Your task to perform on an android device: check data usage Image 0: 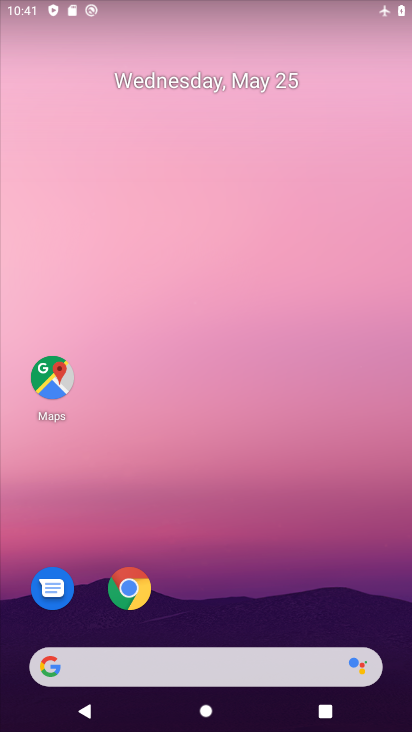
Step 0: drag from (232, 645) to (272, 140)
Your task to perform on an android device: check data usage Image 1: 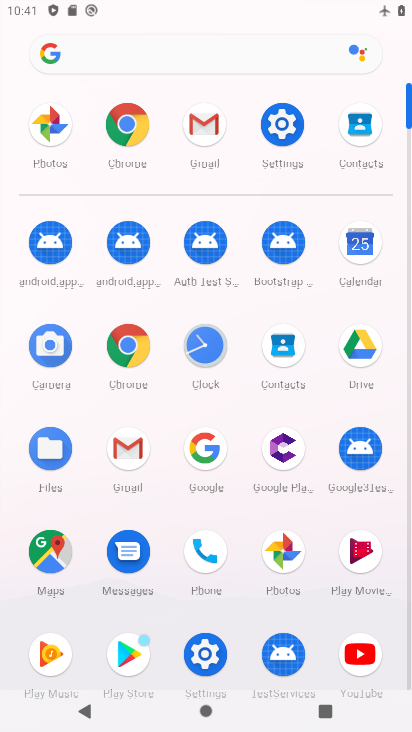
Step 1: click (281, 134)
Your task to perform on an android device: check data usage Image 2: 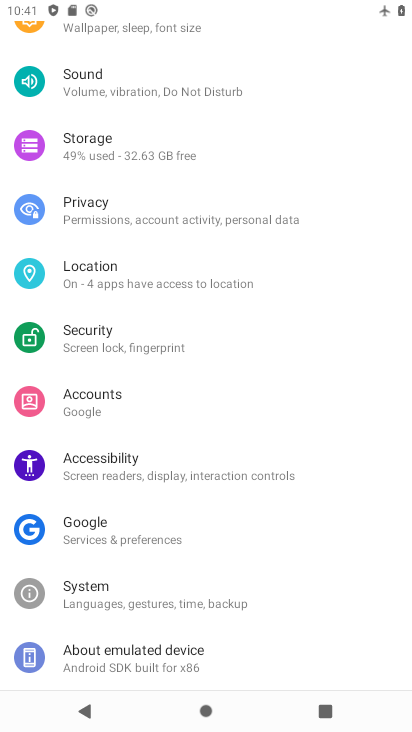
Step 2: drag from (193, 176) to (139, 637)
Your task to perform on an android device: check data usage Image 3: 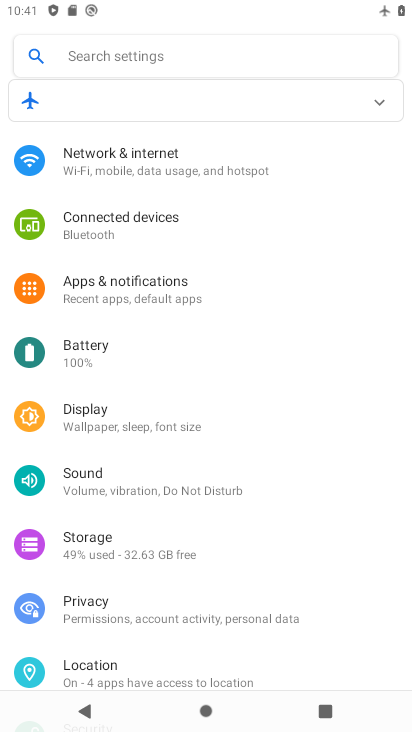
Step 3: click (171, 174)
Your task to perform on an android device: check data usage Image 4: 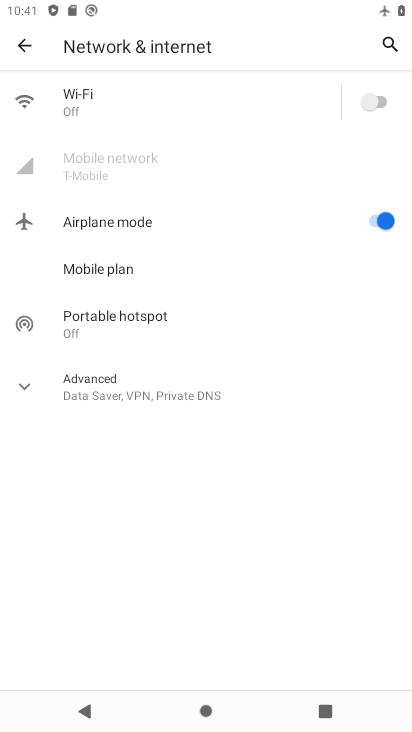
Step 4: click (145, 151)
Your task to perform on an android device: check data usage Image 5: 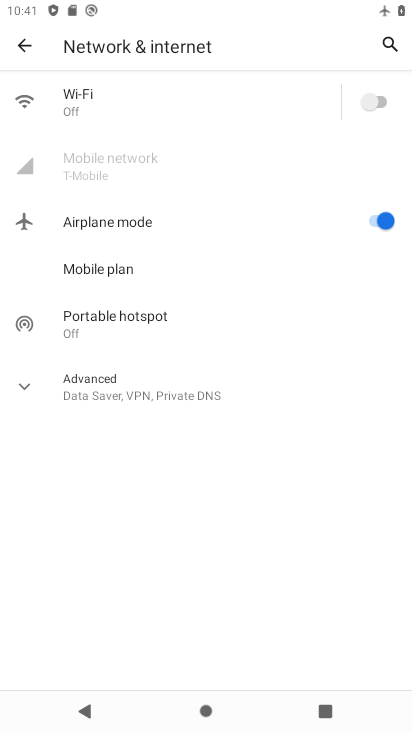
Step 5: click (134, 163)
Your task to perform on an android device: check data usage Image 6: 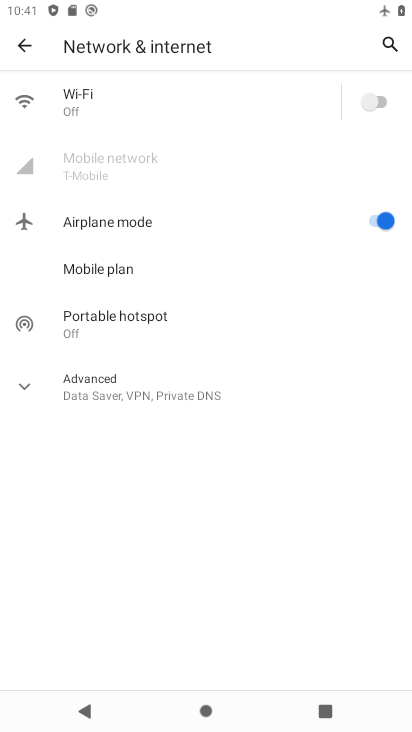
Step 6: click (134, 160)
Your task to perform on an android device: check data usage Image 7: 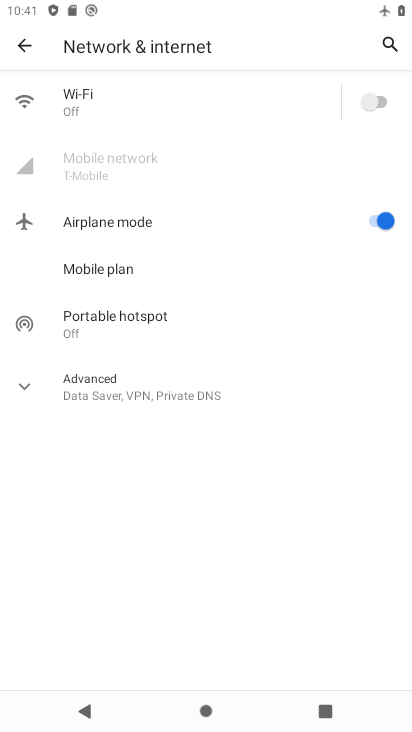
Step 7: click (134, 159)
Your task to perform on an android device: check data usage Image 8: 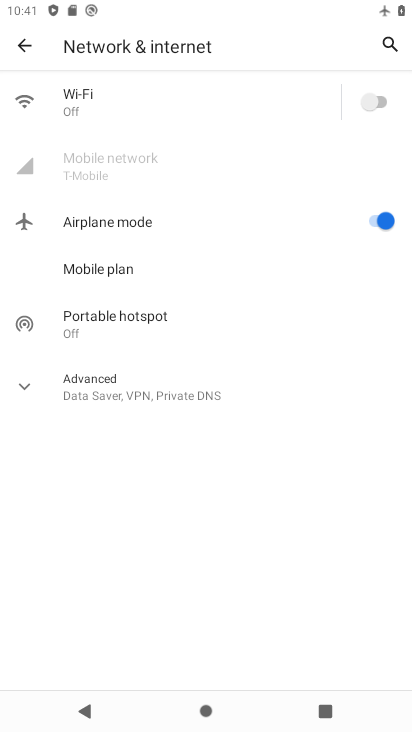
Step 8: click (134, 159)
Your task to perform on an android device: check data usage Image 9: 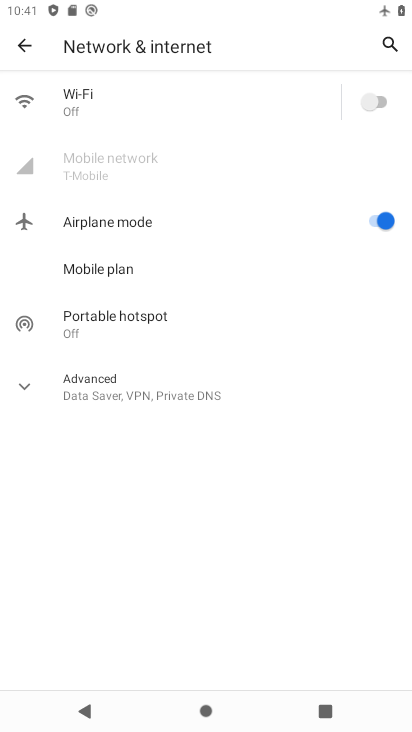
Step 9: click (134, 158)
Your task to perform on an android device: check data usage Image 10: 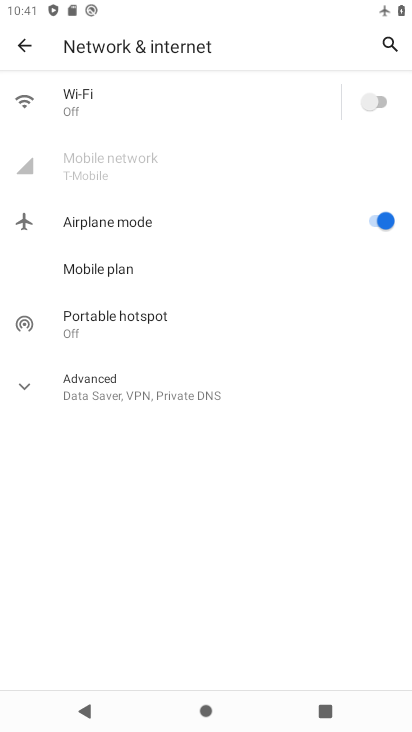
Step 10: click (133, 156)
Your task to perform on an android device: check data usage Image 11: 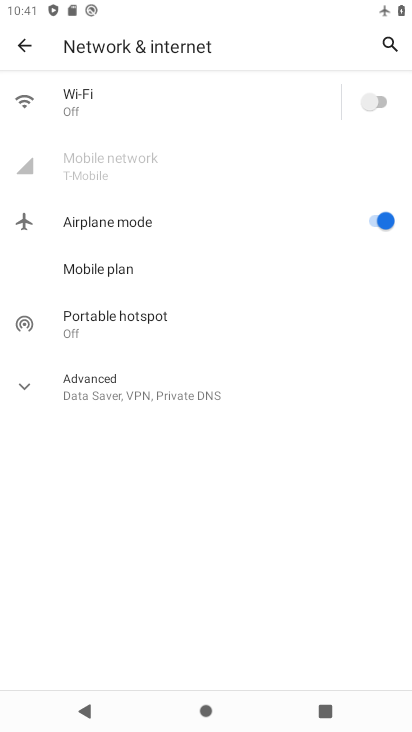
Step 11: click (133, 156)
Your task to perform on an android device: check data usage Image 12: 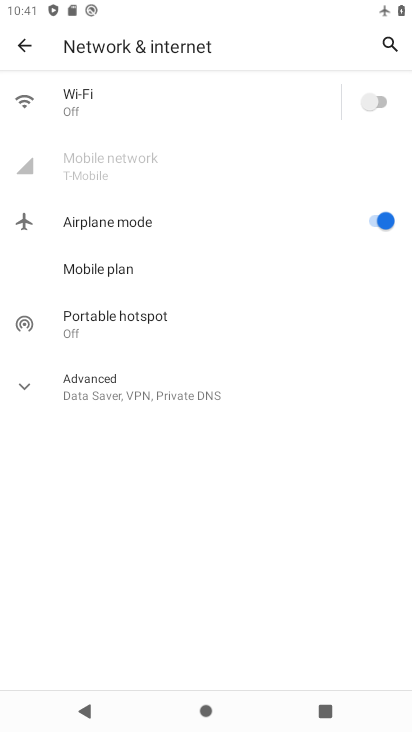
Step 12: click (100, 110)
Your task to perform on an android device: check data usage Image 13: 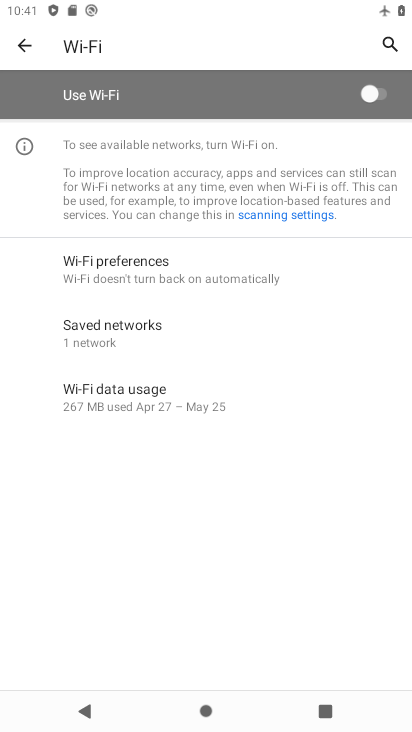
Step 13: click (102, 408)
Your task to perform on an android device: check data usage Image 14: 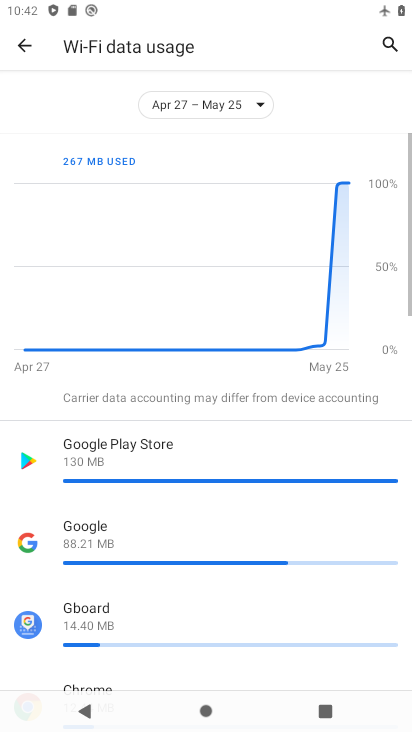
Step 14: task complete